Your task to perform on an android device: change your default location settings in chrome Image 0: 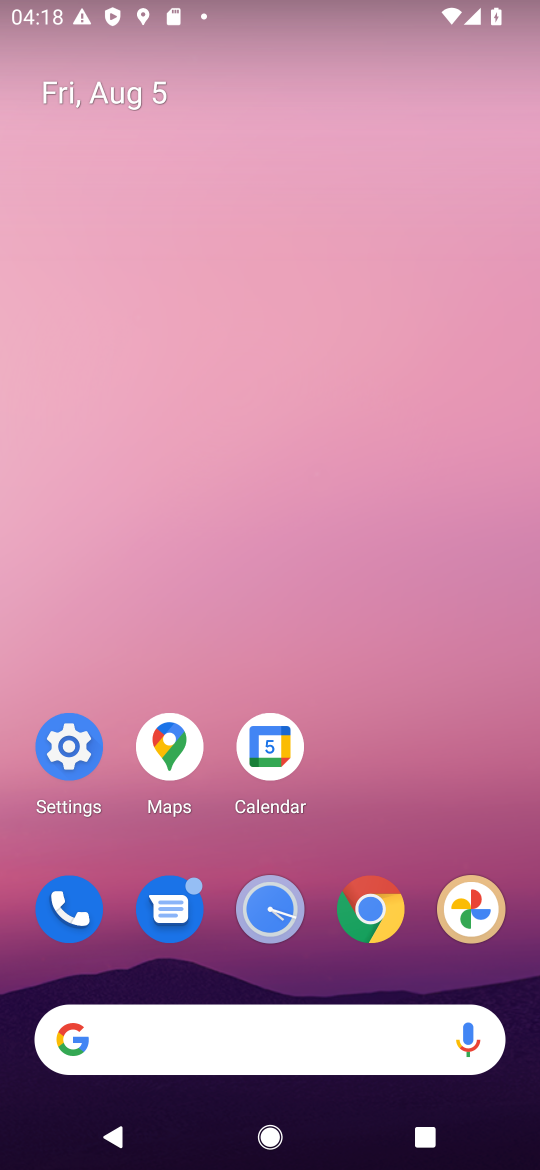
Step 0: click (371, 905)
Your task to perform on an android device: change your default location settings in chrome Image 1: 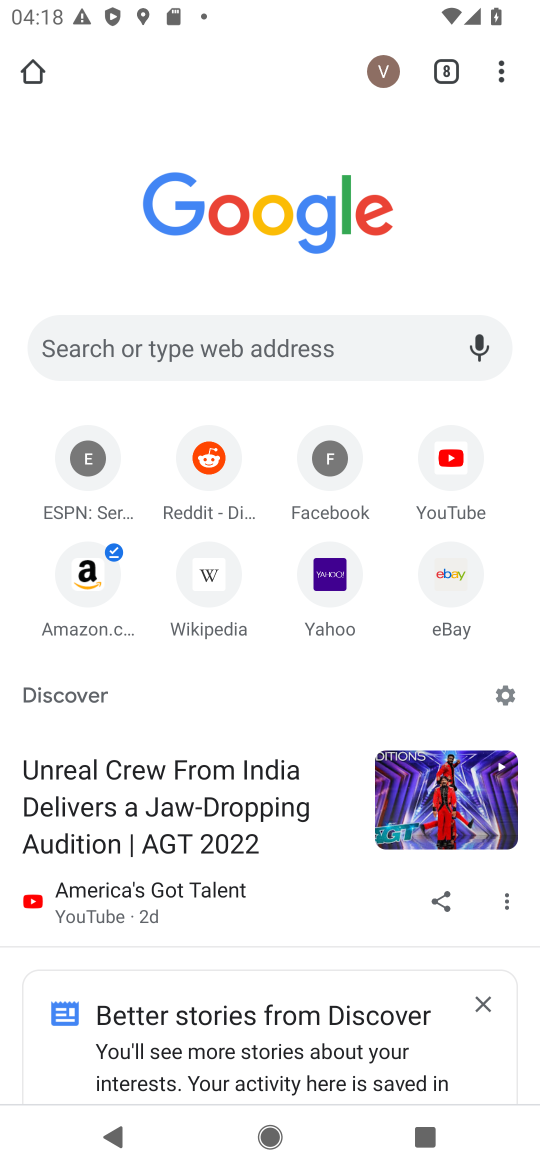
Step 1: click (507, 71)
Your task to perform on an android device: change your default location settings in chrome Image 2: 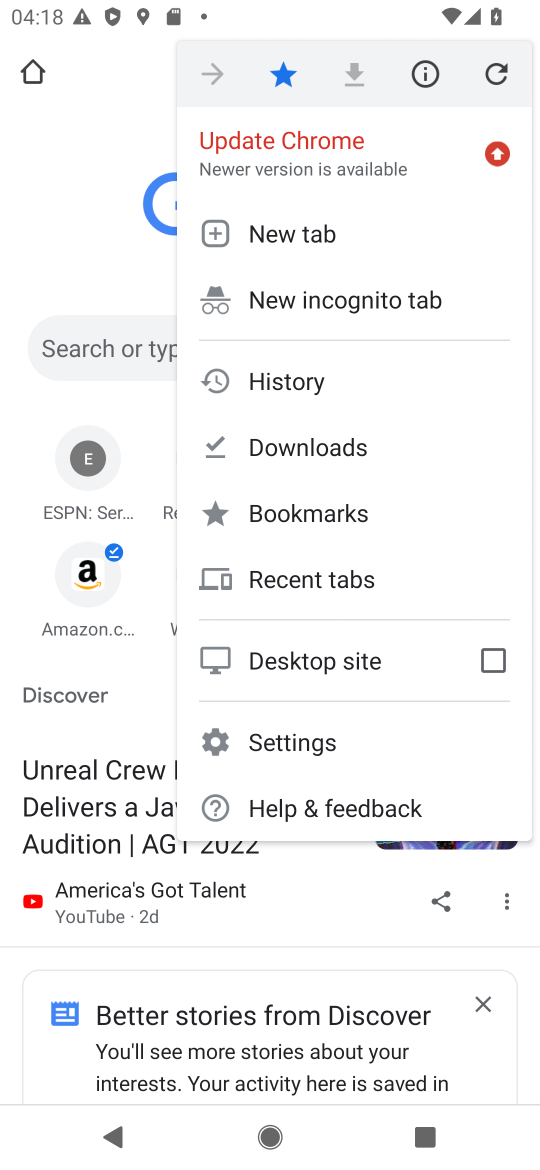
Step 2: click (311, 733)
Your task to perform on an android device: change your default location settings in chrome Image 3: 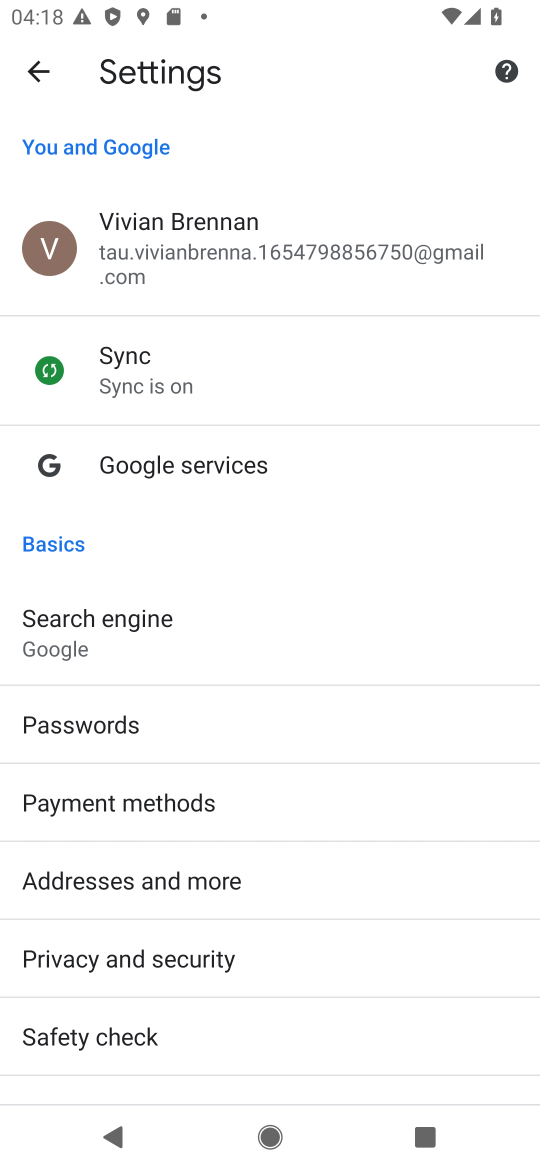
Step 3: drag from (259, 956) to (263, 211)
Your task to perform on an android device: change your default location settings in chrome Image 4: 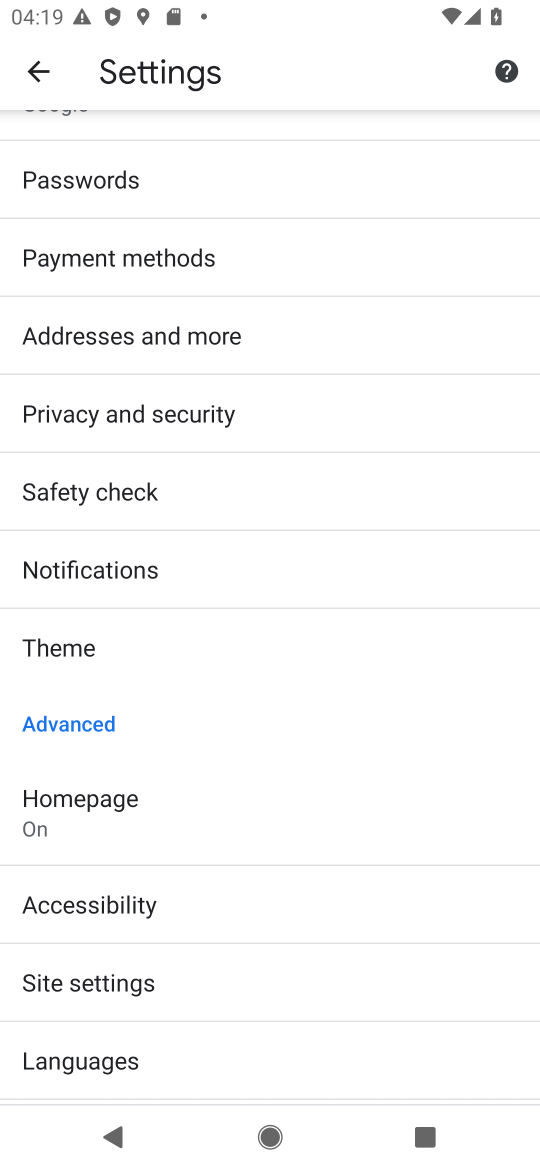
Step 4: click (90, 976)
Your task to perform on an android device: change your default location settings in chrome Image 5: 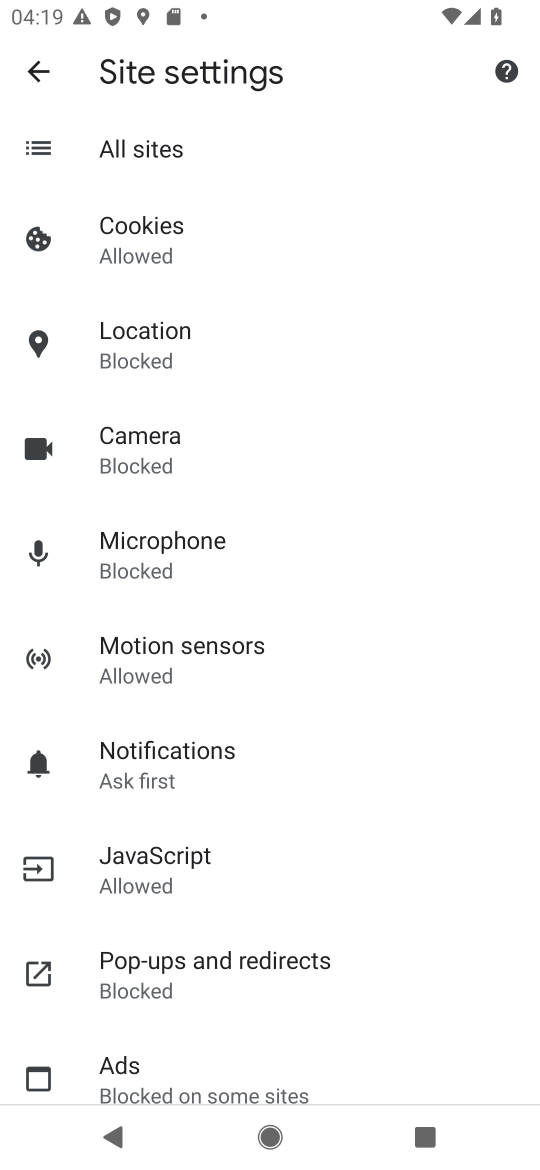
Step 5: click (160, 327)
Your task to perform on an android device: change your default location settings in chrome Image 6: 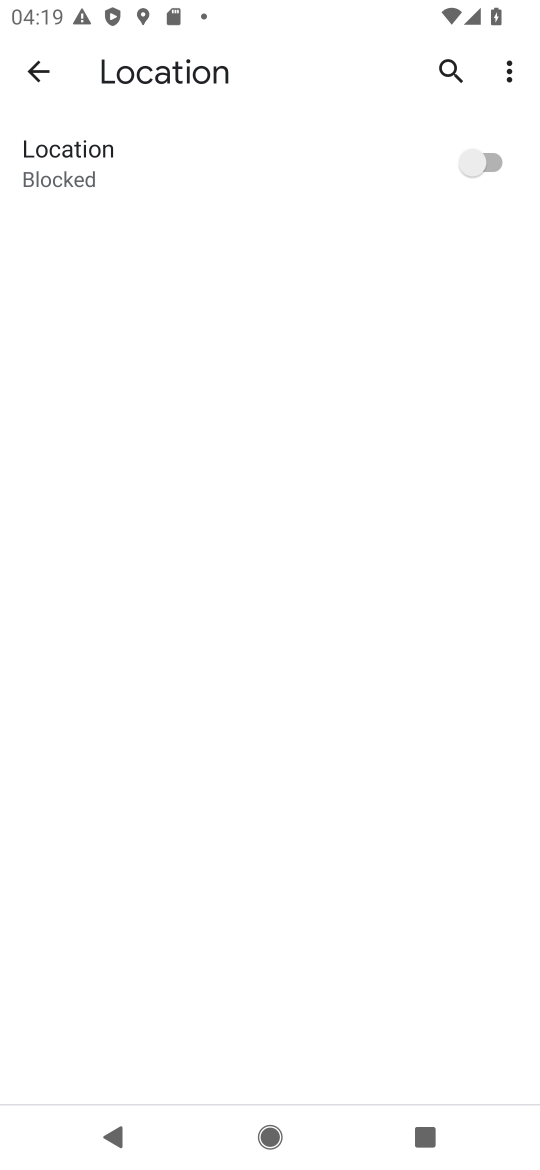
Step 6: click (466, 152)
Your task to perform on an android device: change your default location settings in chrome Image 7: 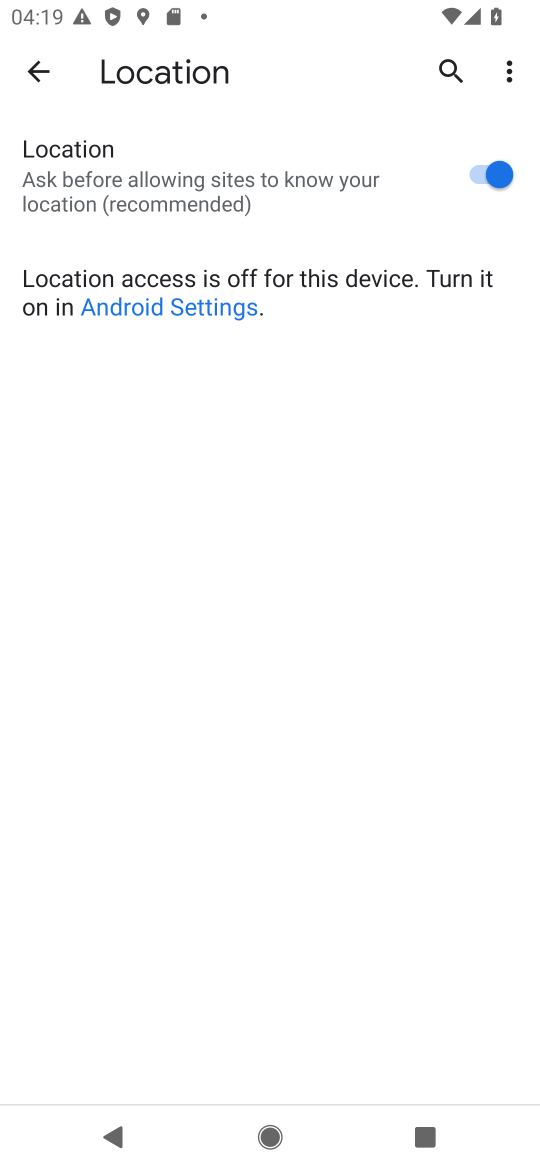
Step 7: task complete